Your task to perform on an android device: Open Google Chrome Image 0: 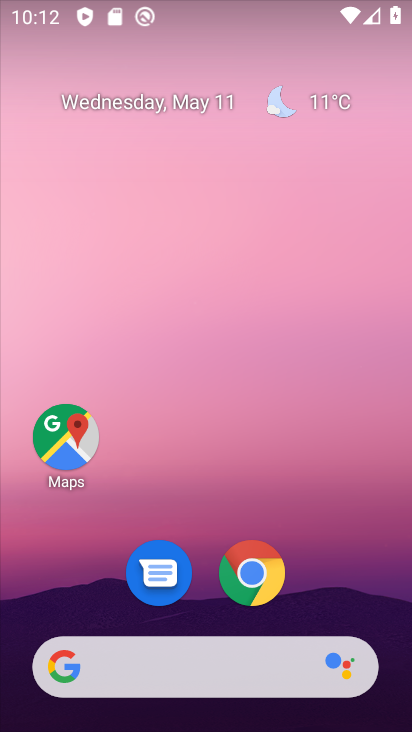
Step 0: click (249, 596)
Your task to perform on an android device: Open Google Chrome Image 1: 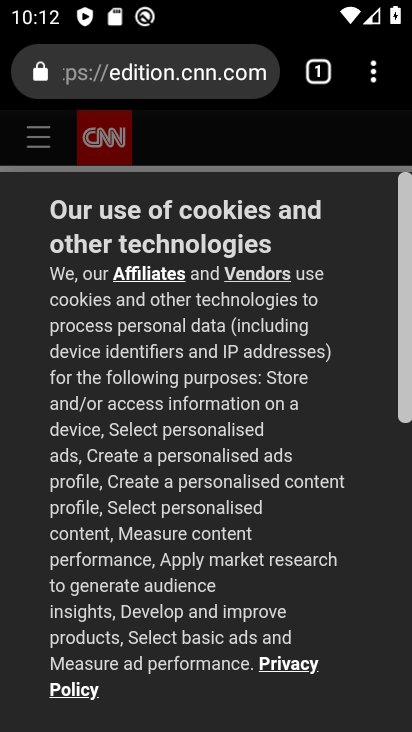
Step 1: task complete